Your task to perform on an android device: Open Chrome and go to settings Image 0: 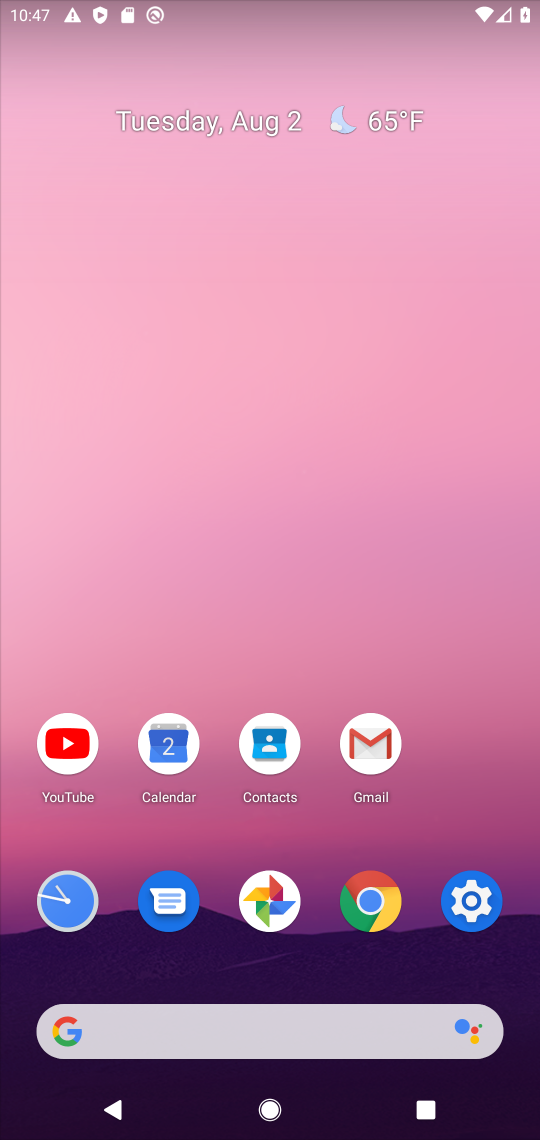
Step 0: click (380, 894)
Your task to perform on an android device: Open Chrome and go to settings Image 1: 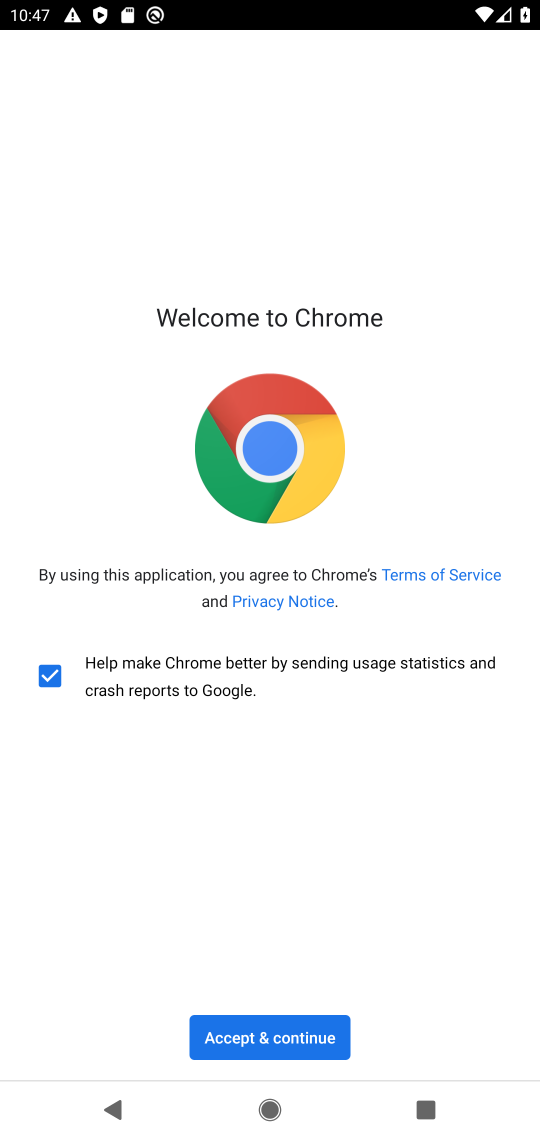
Step 1: click (223, 1033)
Your task to perform on an android device: Open Chrome and go to settings Image 2: 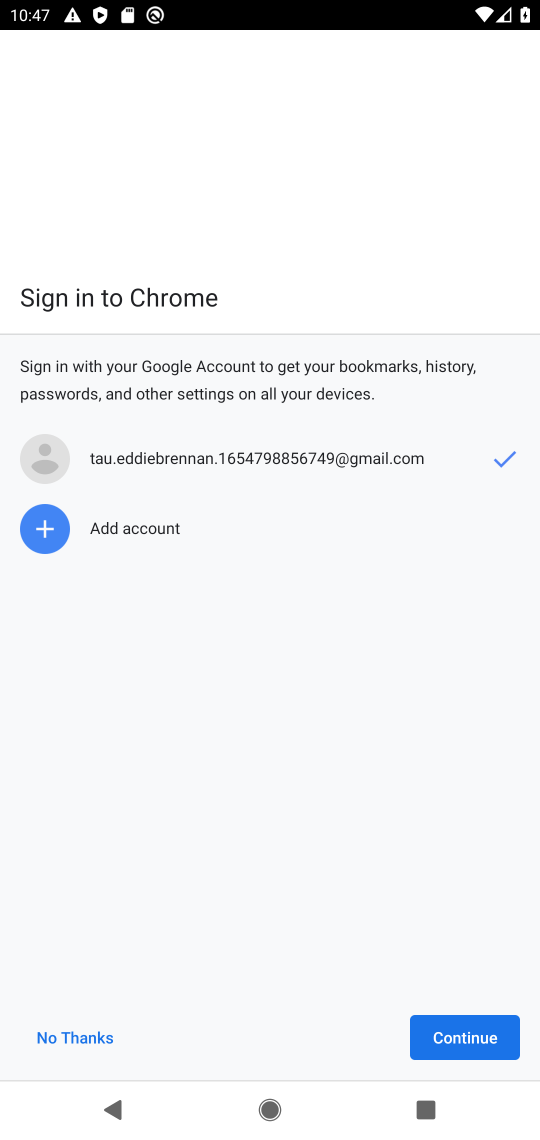
Step 2: click (466, 1040)
Your task to perform on an android device: Open Chrome and go to settings Image 3: 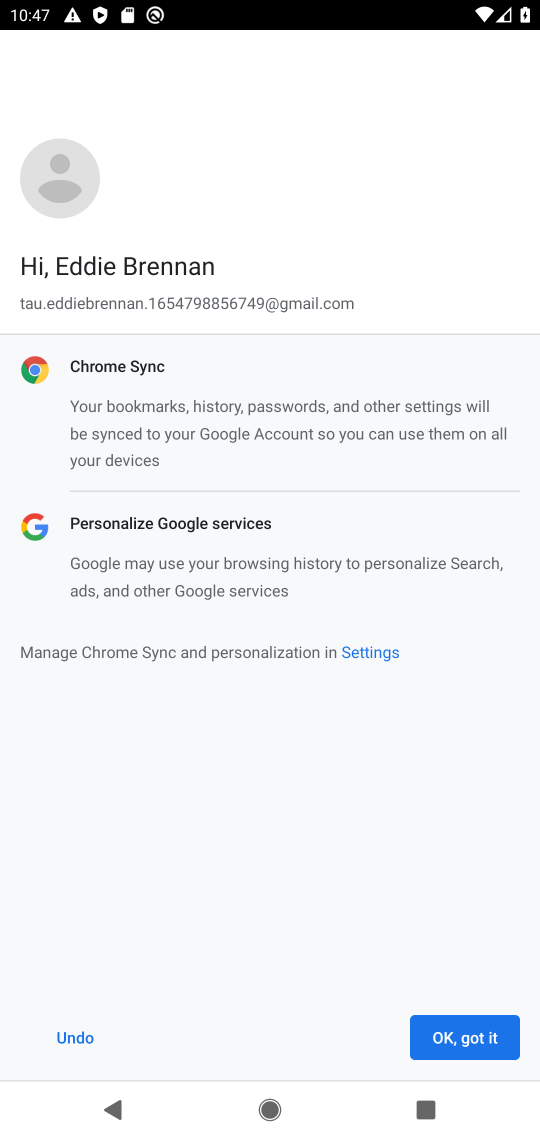
Step 3: click (443, 1049)
Your task to perform on an android device: Open Chrome and go to settings Image 4: 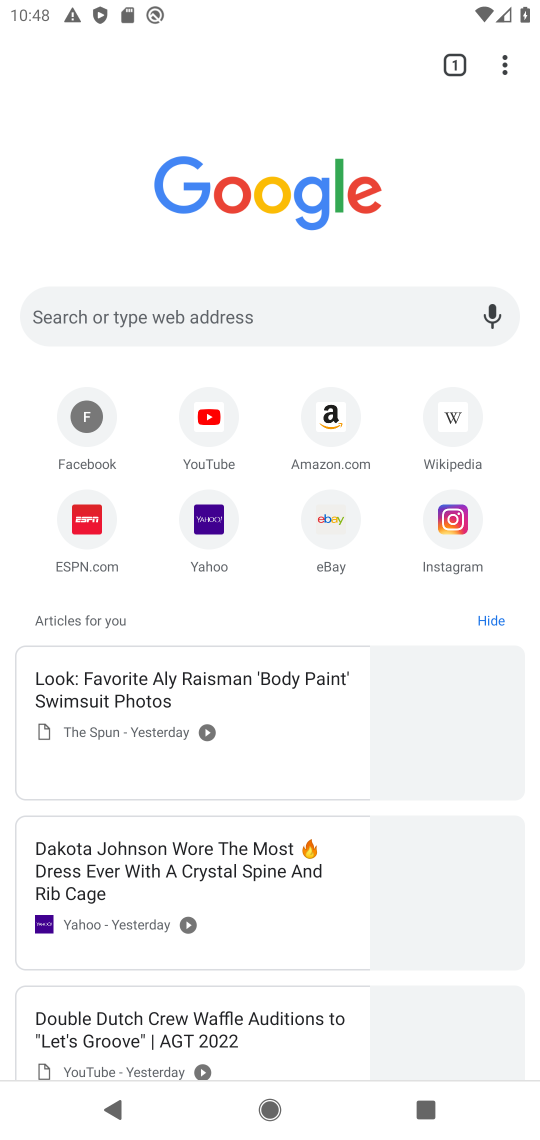
Step 4: click (507, 55)
Your task to perform on an android device: Open Chrome and go to settings Image 5: 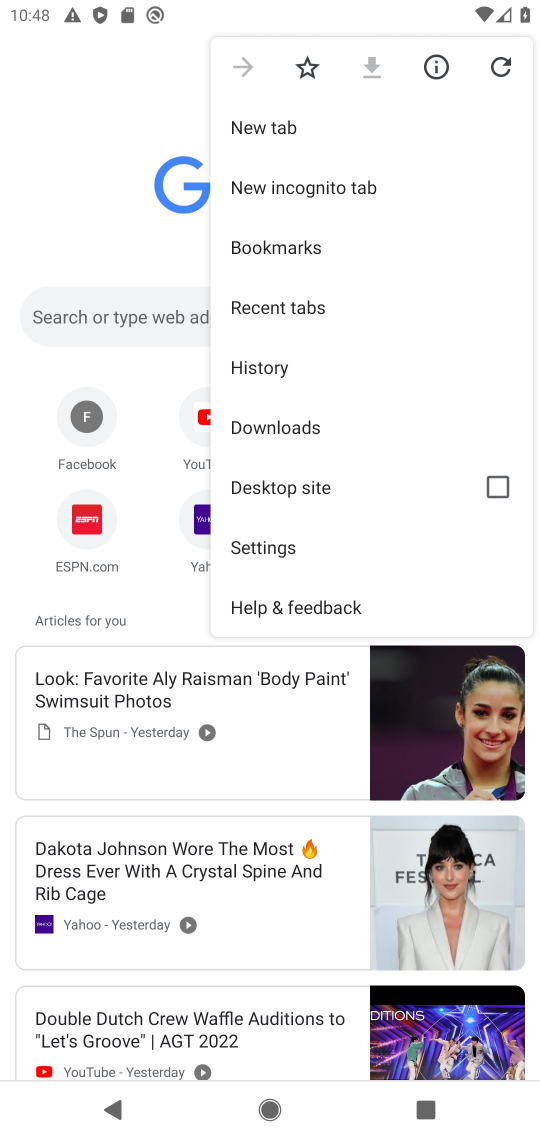
Step 5: click (278, 535)
Your task to perform on an android device: Open Chrome and go to settings Image 6: 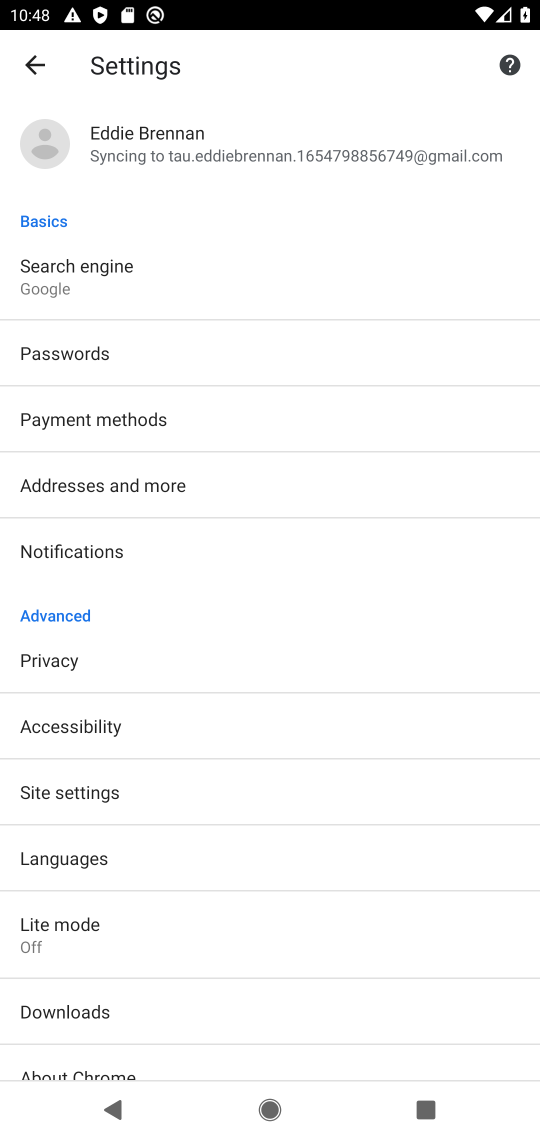
Step 6: task complete